Your task to perform on an android device: Do I have any events this weekend? Image 0: 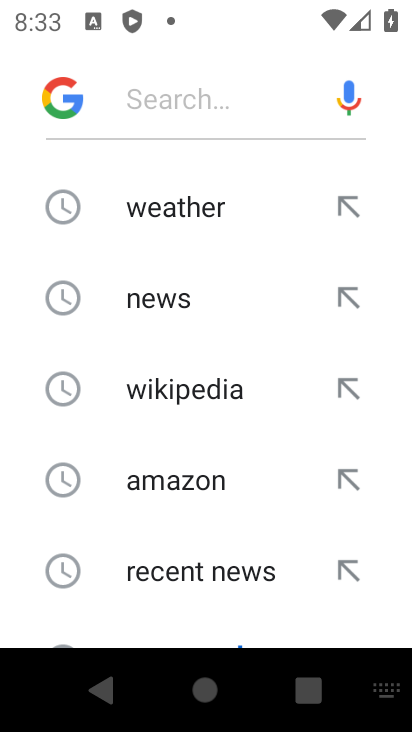
Step 0: press home button
Your task to perform on an android device: Do I have any events this weekend? Image 1: 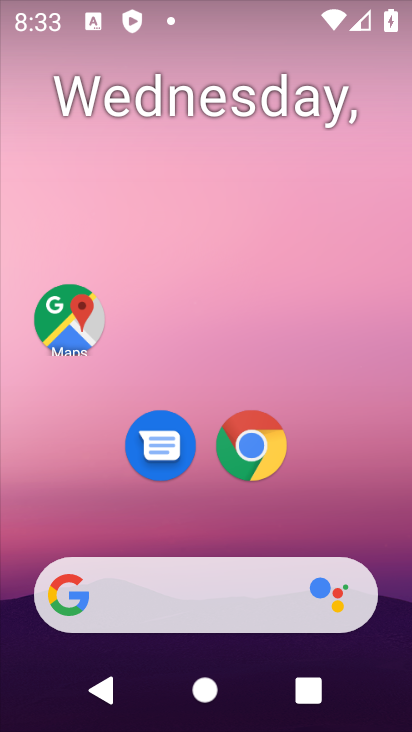
Step 1: drag from (340, 435) to (273, 11)
Your task to perform on an android device: Do I have any events this weekend? Image 2: 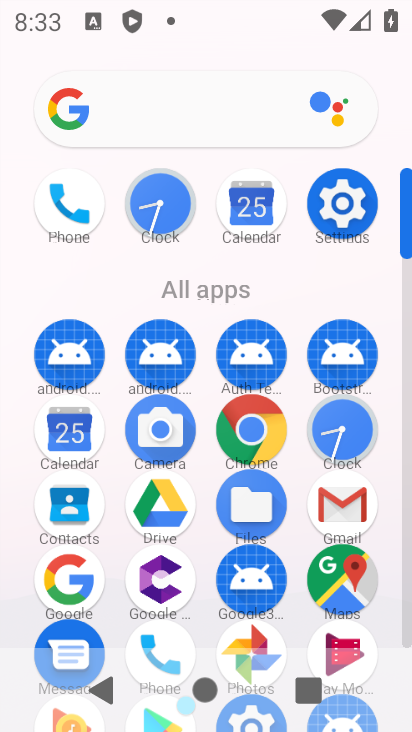
Step 2: click (70, 439)
Your task to perform on an android device: Do I have any events this weekend? Image 3: 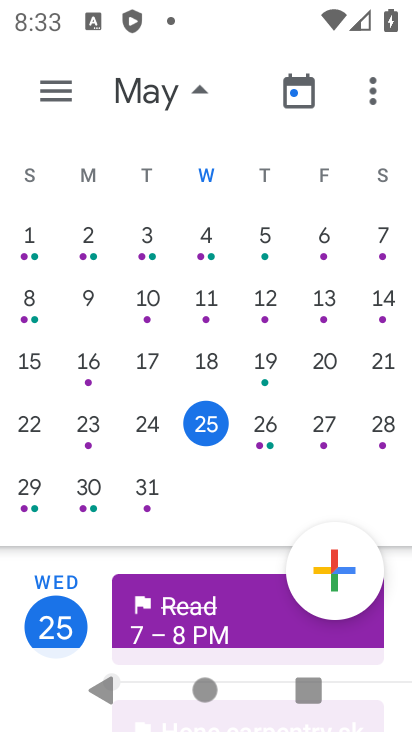
Step 3: task complete